Your task to perform on an android device: toggle notifications settings in the gmail app Image 0: 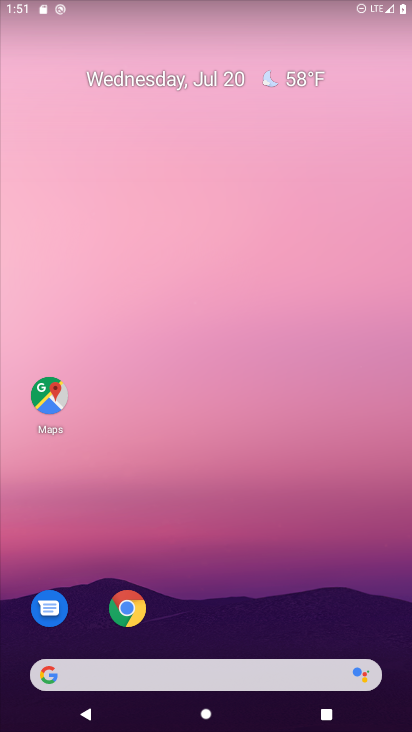
Step 0: drag from (265, 728) to (272, 149)
Your task to perform on an android device: toggle notifications settings in the gmail app Image 1: 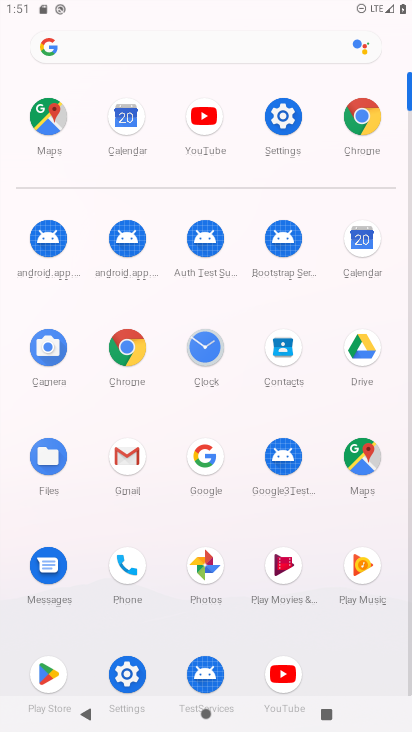
Step 1: click (131, 455)
Your task to perform on an android device: toggle notifications settings in the gmail app Image 2: 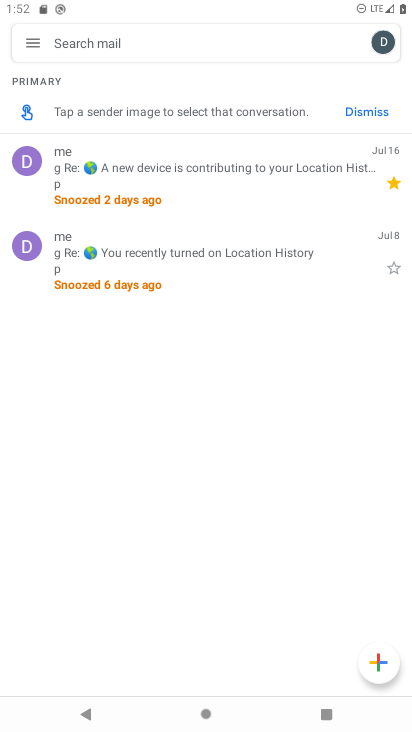
Step 2: click (30, 40)
Your task to perform on an android device: toggle notifications settings in the gmail app Image 3: 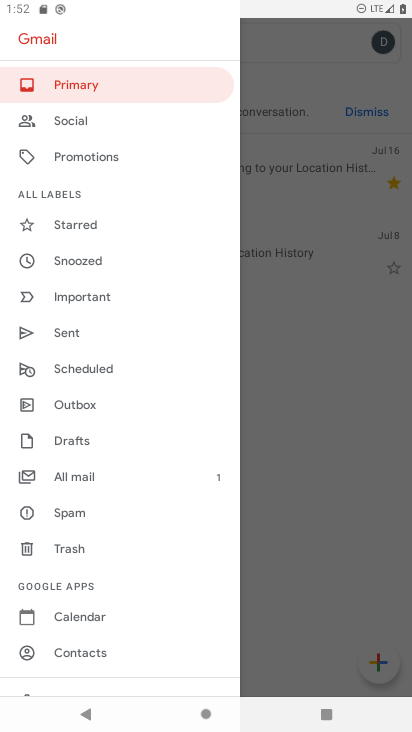
Step 3: drag from (89, 665) to (73, 446)
Your task to perform on an android device: toggle notifications settings in the gmail app Image 4: 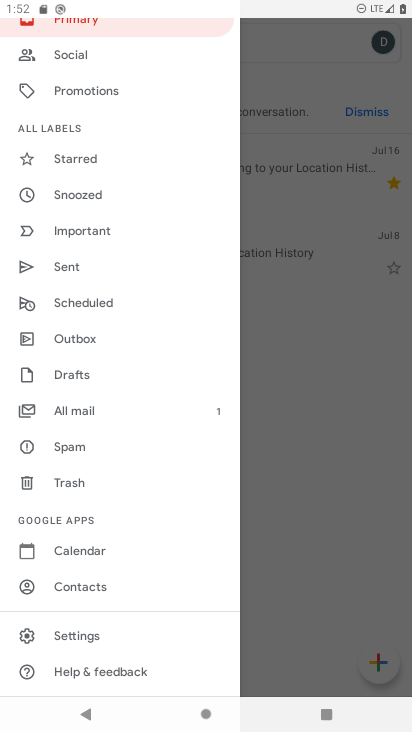
Step 4: click (70, 633)
Your task to perform on an android device: toggle notifications settings in the gmail app Image 5: 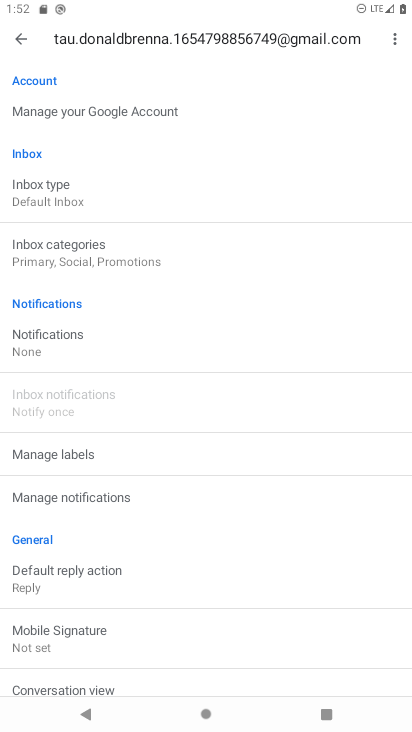
Step 5: click (47, 336)
Your task to perform on an android device: toggle notifications settings in the gmail app Image 6: 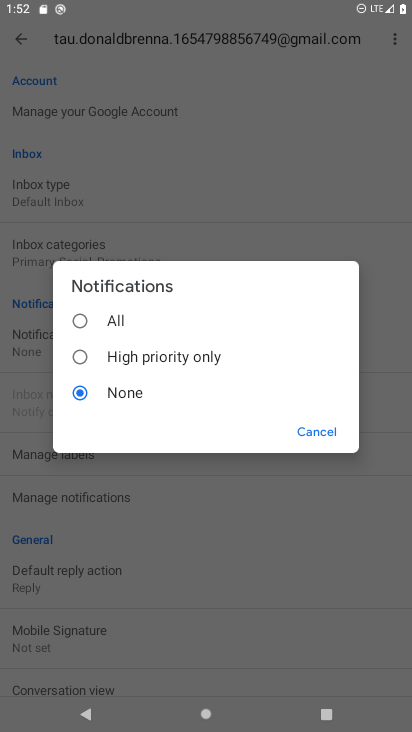
Step 6: click (79, 318)
Your task to perform on an android device: toggle notifications settings in the gmail app Image 7: 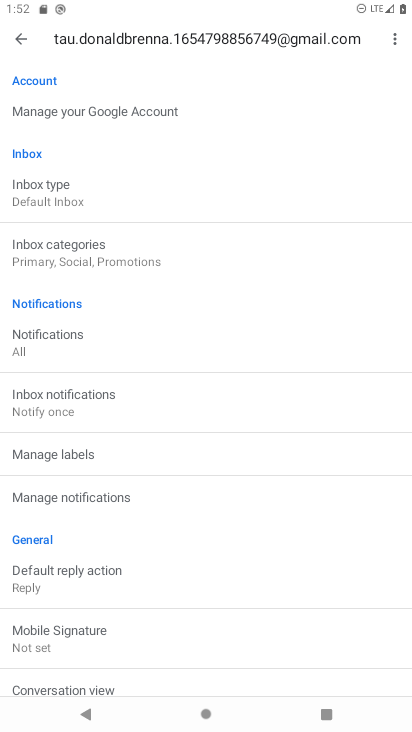
Step 7: task complete